Your task to perform on an android device: set the timer Image 0: 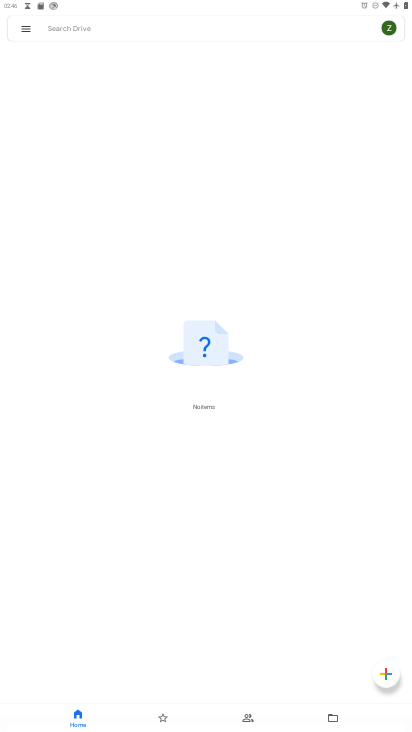
Step 0: press home button
Your task to perform on an android device: set the timer Image 1: 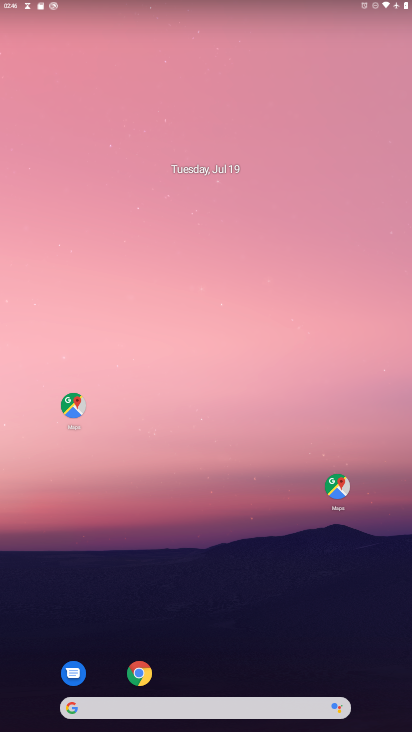
Step 1: drag from (171, 616) to (174, 473)
Your task to perform on an android device: set the timer Image 2: 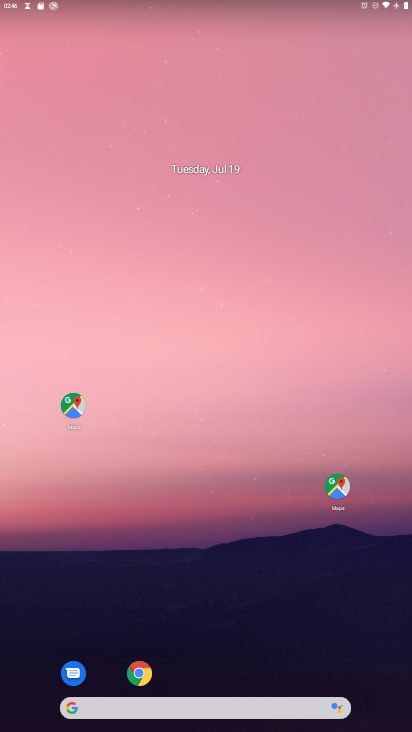
Step 2: drag from (192, 621) to (212, 460)
Your task to perform on an android device: set the timer Image 3: 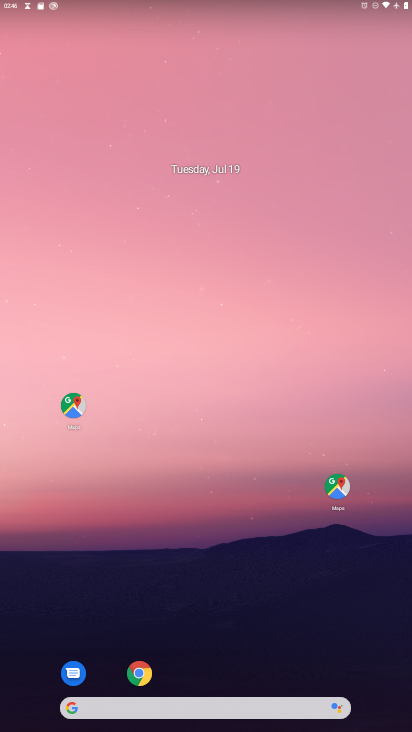
Step 3: drag from (212, 461) to (219, 78)
Your task to perform on an android device: set the timer Image 4: 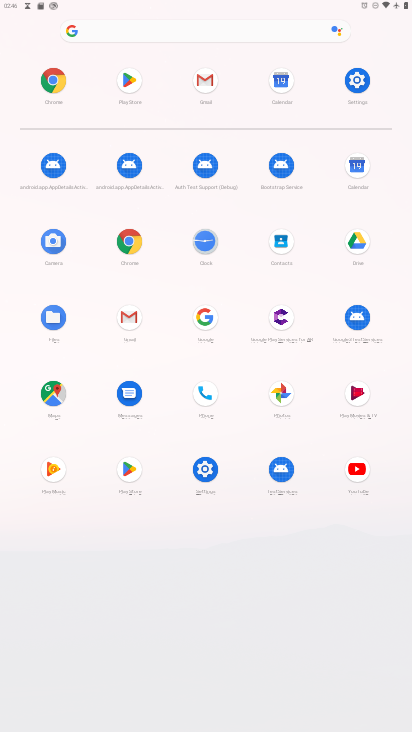
Step 4: click (197, 237)
Your task to perform on an android device: set the timer Image 5: 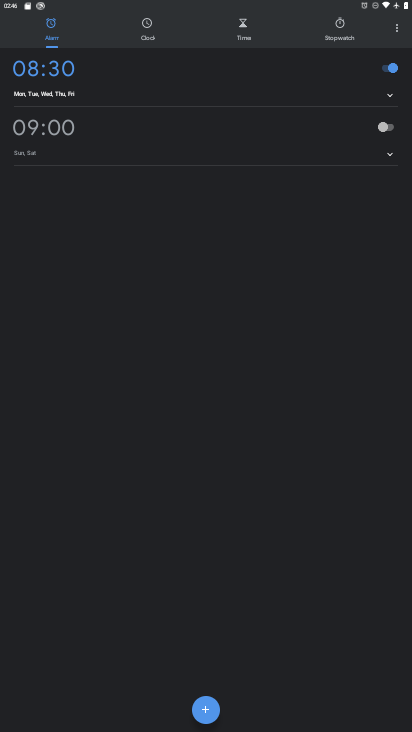
Step 5: click (247, 36)
Your task to perform on an android device: set the timer Image 6: 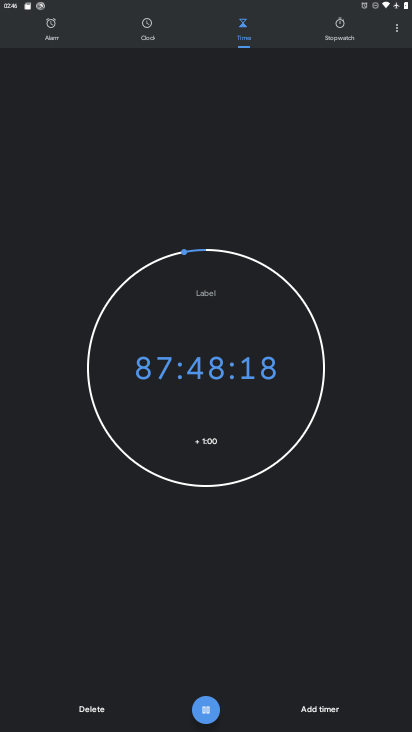
Step 6: task complete